Your task to perform on an android device: Find coffee shops on Maps Image 0: 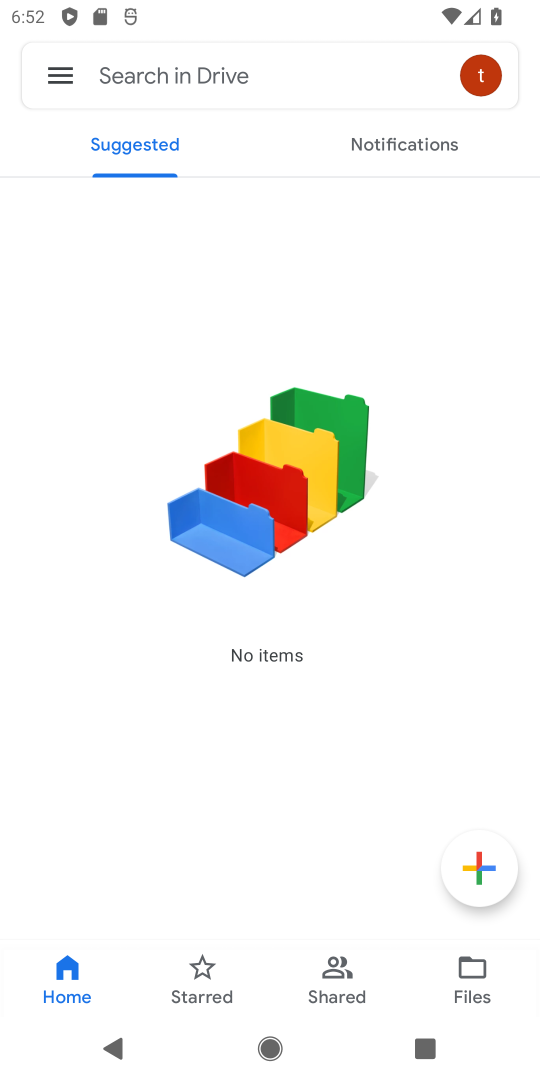
Step 0: press home button
Your task to perform on an android device: Find coffee shops on Maps Image 1: 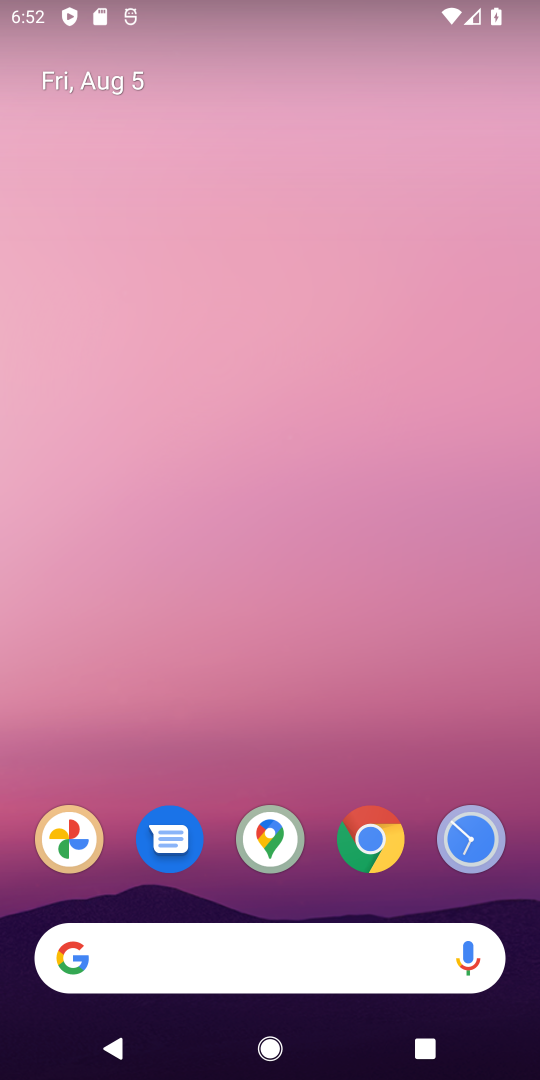
Step 1: drag from (330, 897) to (401, 100)
Your task to perform on an android device: Find coffee shops on Maps Image 2: 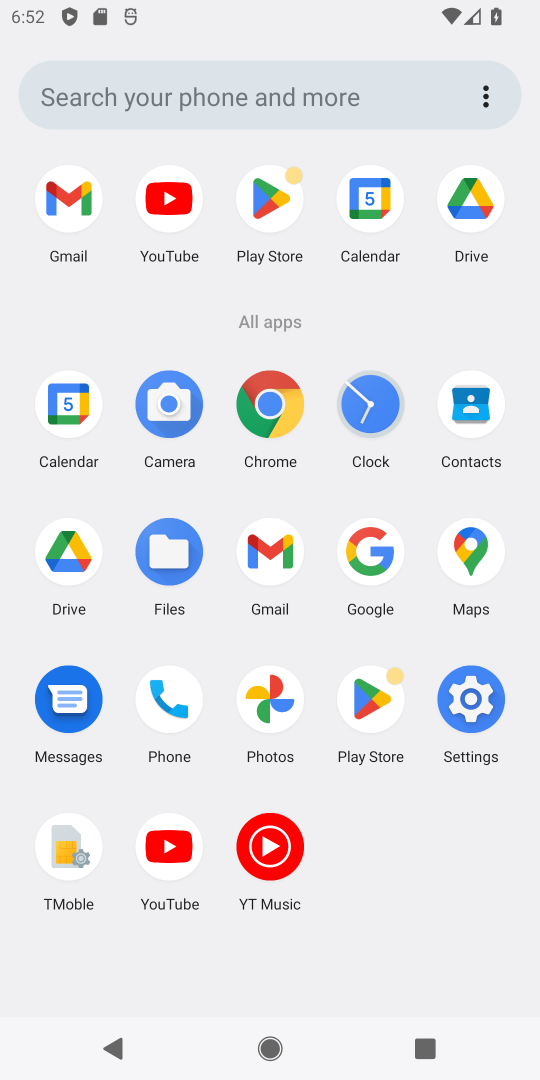
Step 2: click (472, 552)
Your task to perform on an android device: Find coffee shops on Maps Image 3: 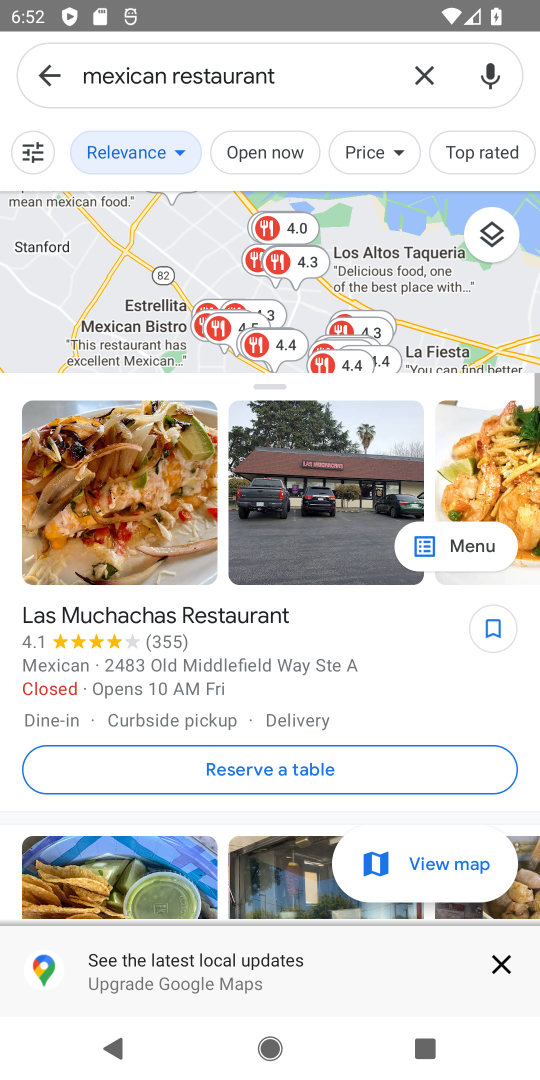
Step 3: click (424, 77)
Your task to perform on an android device: Find coffee shops on Maps Image 4: 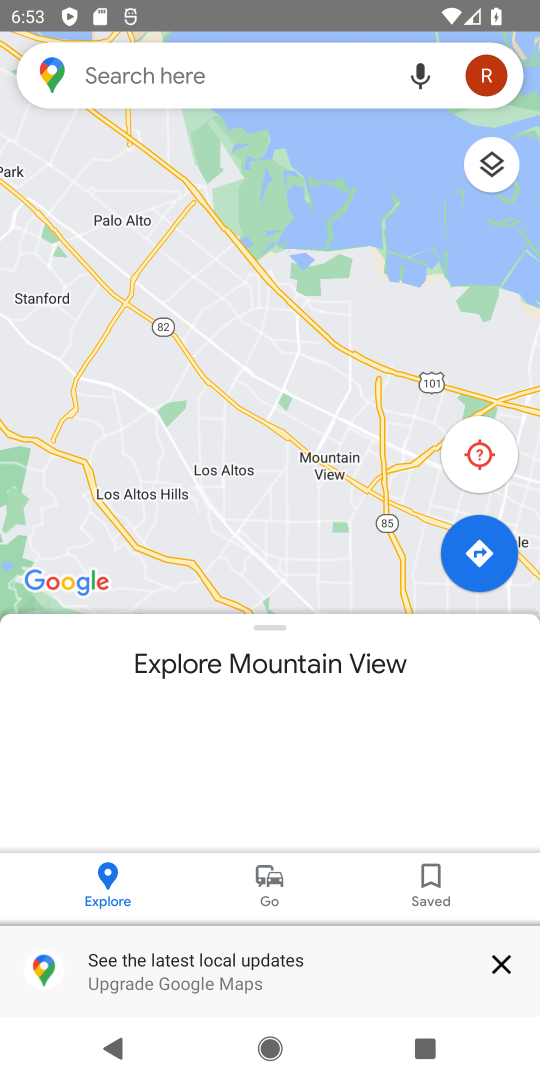
Step 4: click (200, 71)
Your task to perform on an android device: Find coffee shops on Maps Image 5: 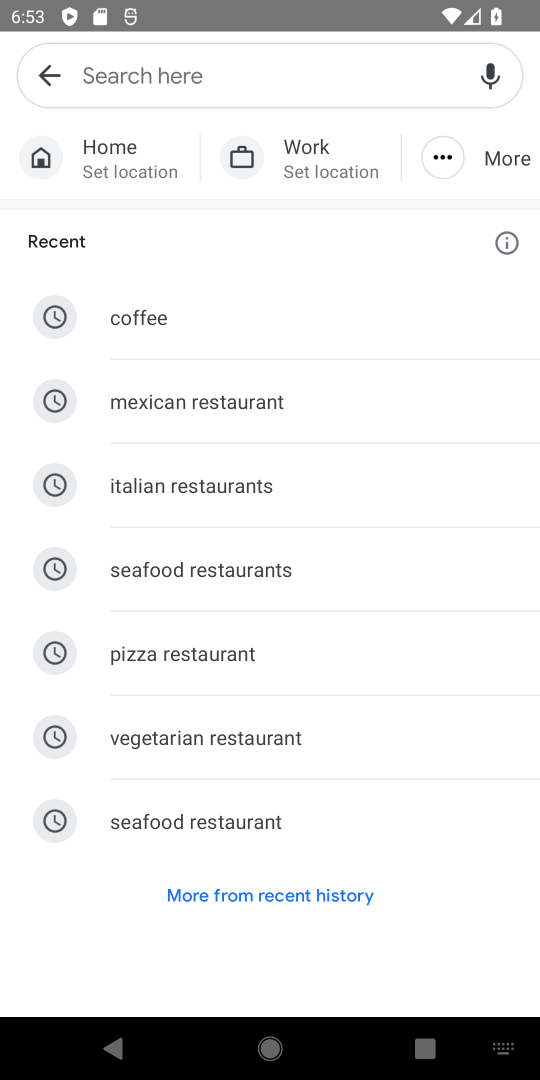
Step 5: type "coffee shops"
Your task to perform on an android device: Find coffee shops on Maps Image 6: 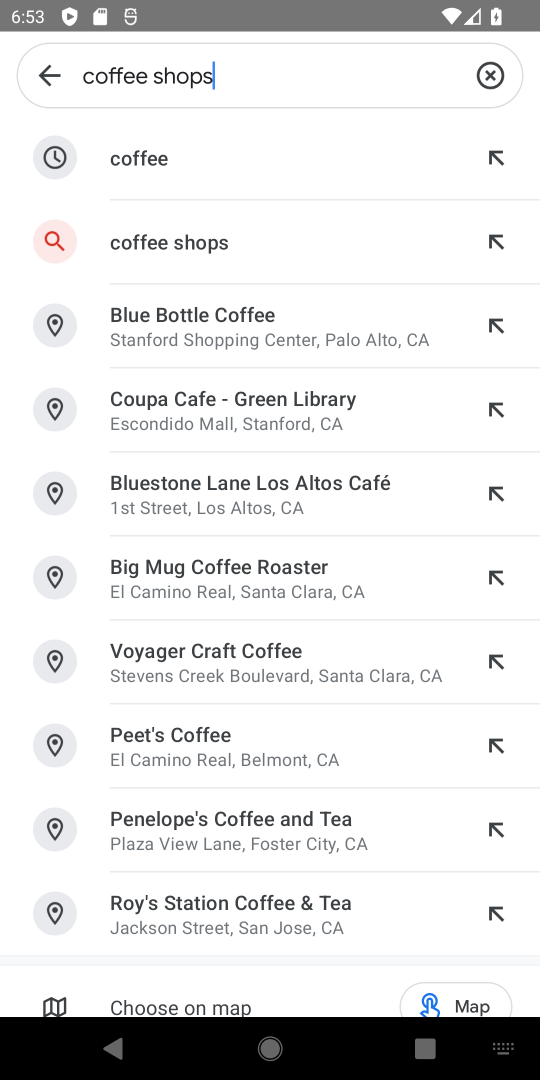
Step 6: click (202, 239)
Your task to perform on an android device: Find coffee shops on Maps Image 7: 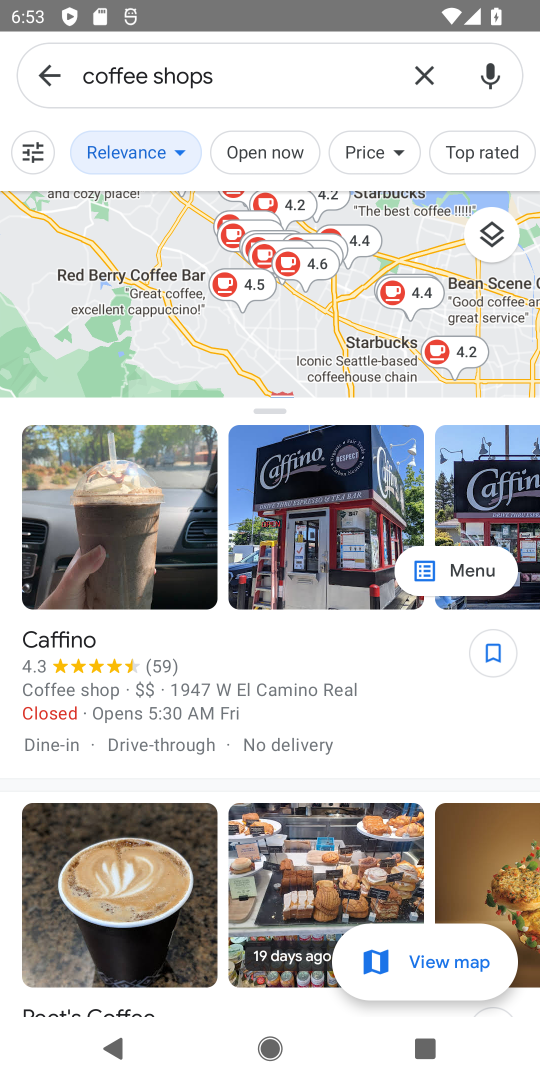
Step 7: task complete